Your task to perform on an android device: toggle airplane mode Image 0: 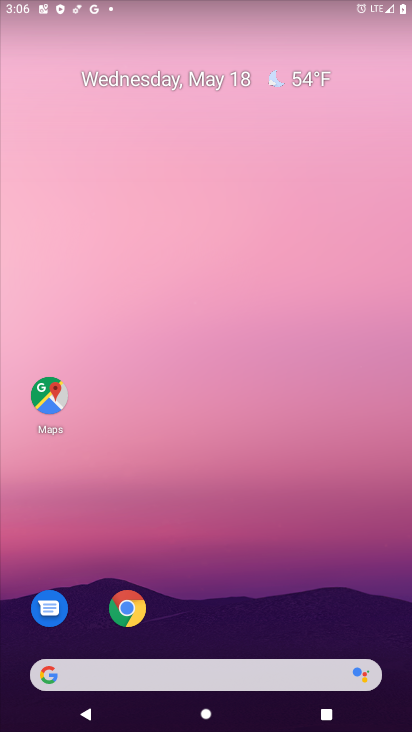
Step 0: drag from (284, 640) to (294, 7)
Your task to perform on an android device: toggle airplane mode Image 1: 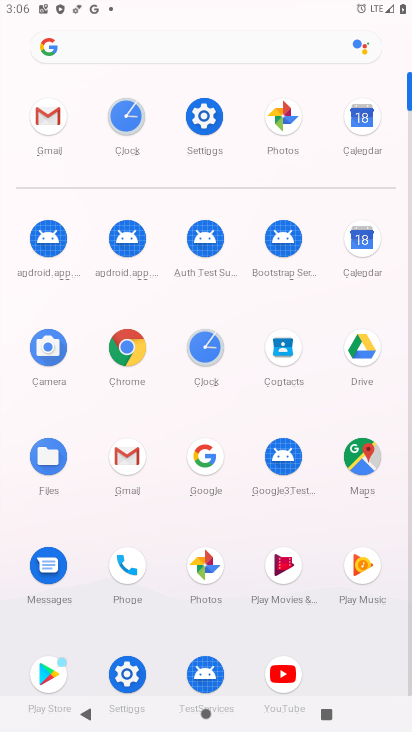
Step 1: click (199, 122)
Your task to perform on an android device: toggle airplane mode Image 2: 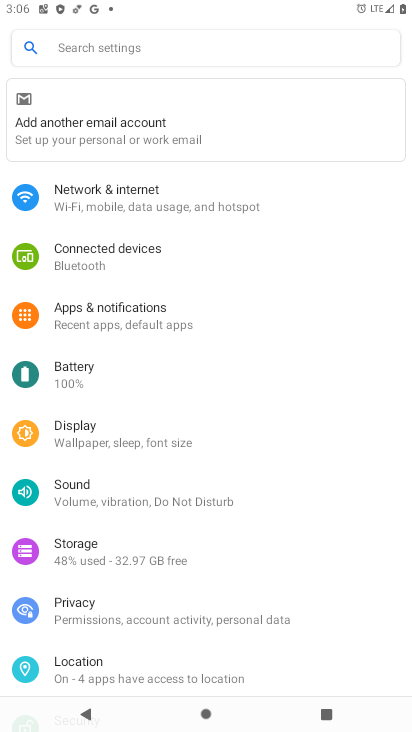
Step 2: click (147, 198)
Your task to perform on an android device: toggle airplane mode Image 3: 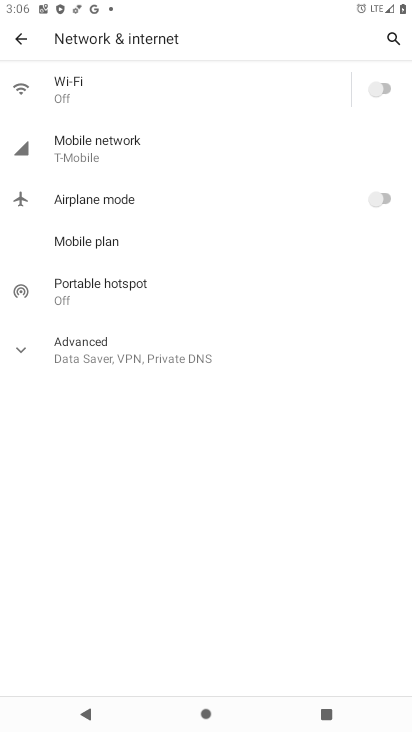
Step 3: click (368, 197)
Your task to perform on an android device: toggle airplane mode Image 4: 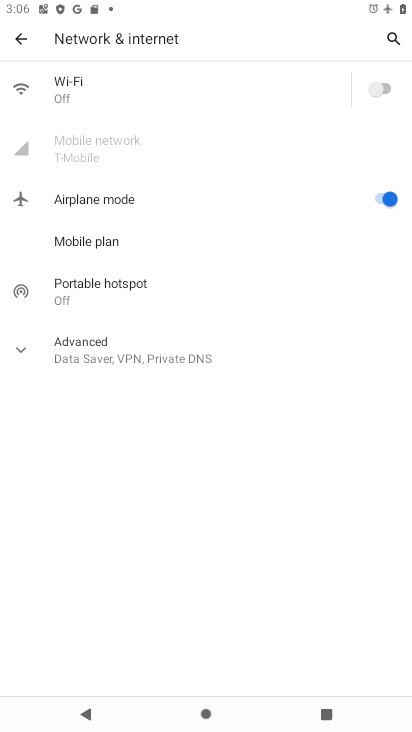
Step 4: task complete